Your task to perform on an android device: Clear the cart on walmart. Image 0: 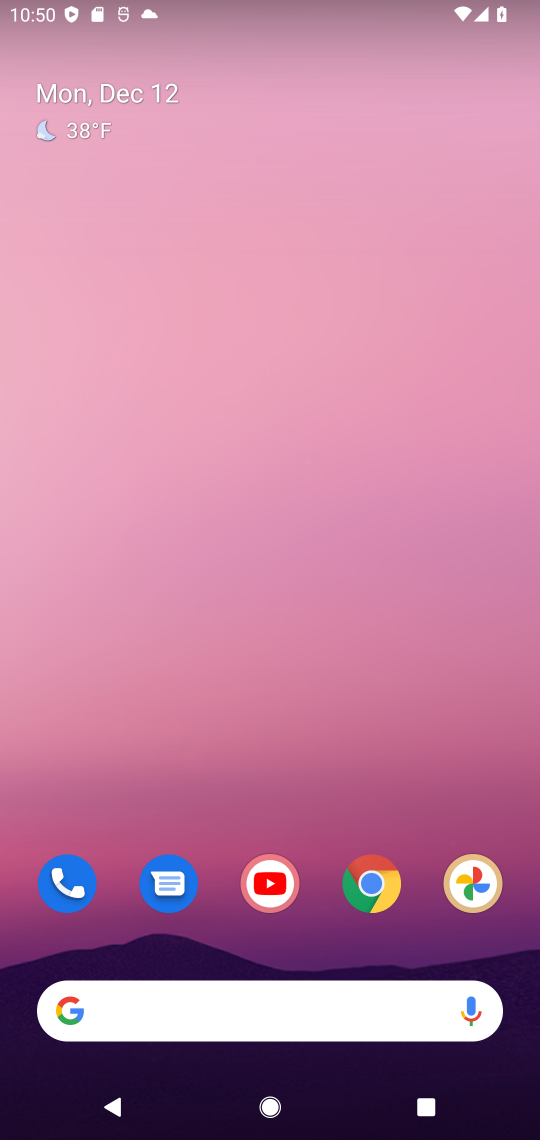
Step 0: drag from (241, 745) to (270, 191)
Your task to perform on an android device: Clear the cart on walmart. Image 1: 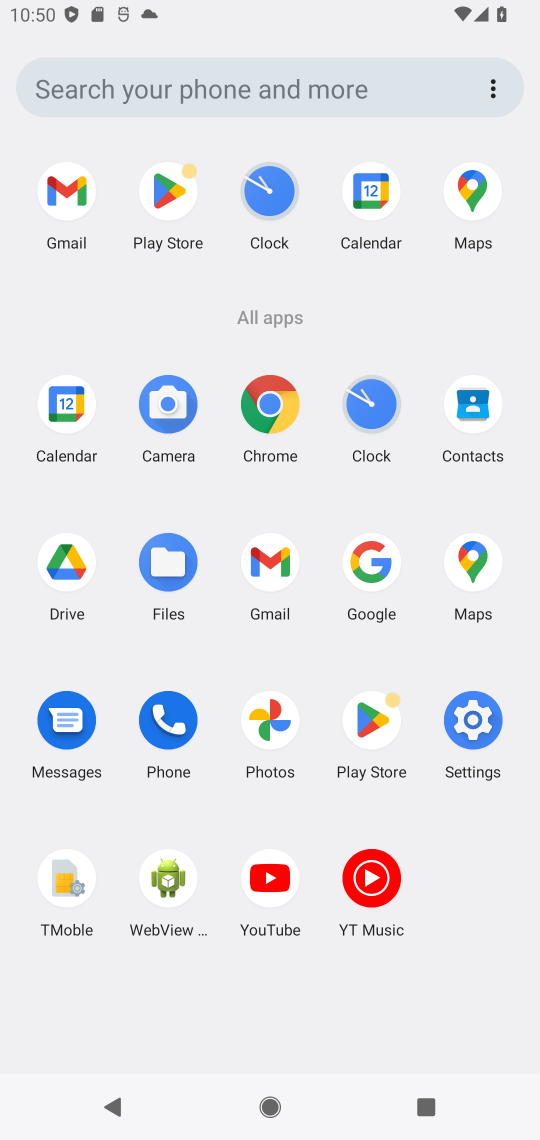
Step 1: click (370, 568)
Your task to perform on an android device: Clear the cart on walmart. Image 2: 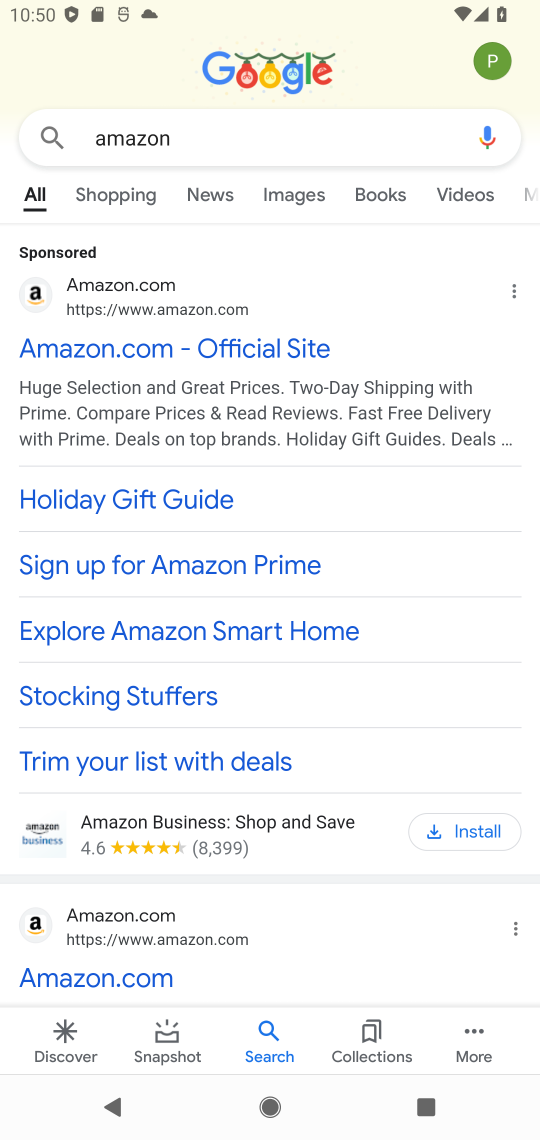
Step 2: click (189, 160)
Your task to perform on an android device: Clear the cart on walmart. Image 3: 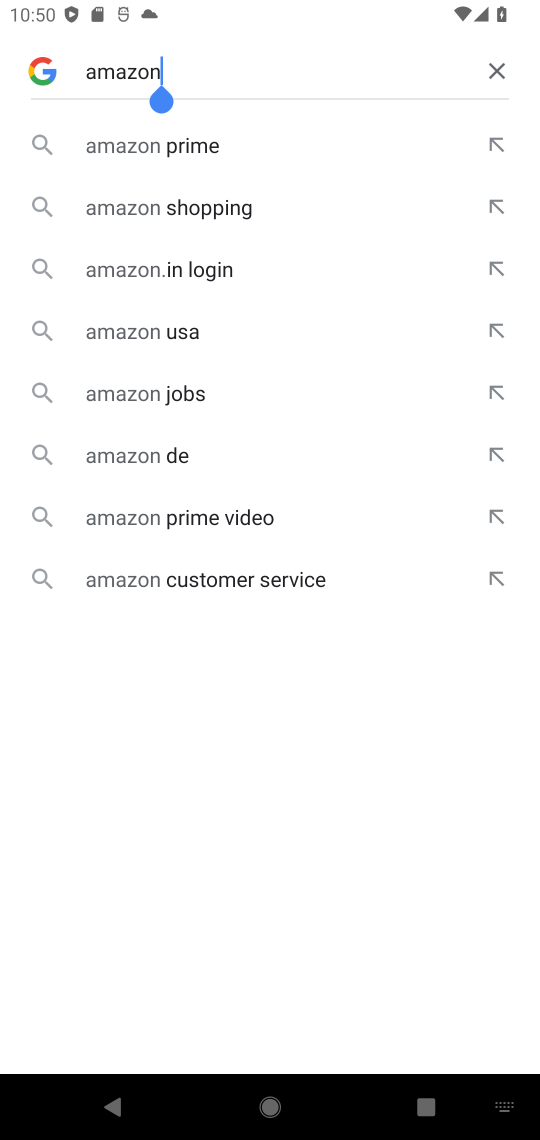
Step 3: click (489, 65)
Your task to perform on an android device: Clear the cart on walmart. Image 4: 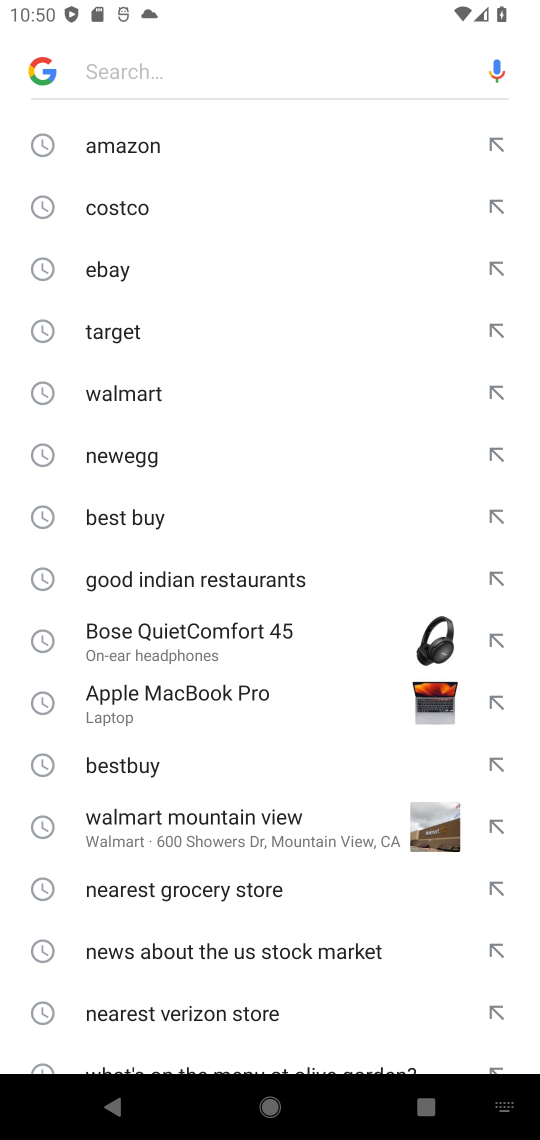
Step 4: click (133, 391)
Your task to perform on an android device: Clear the cart on walmart. Image 5: 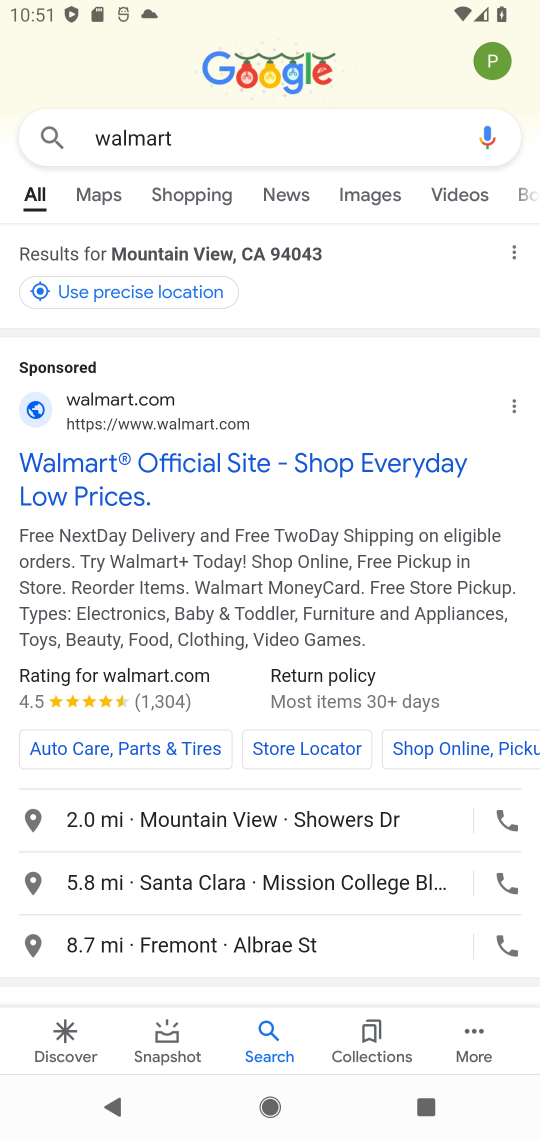
Step 5: drag from (383, 850) to (373, 522)
Your task to perform on an android device: Clear the cart on walmart. Image 6: 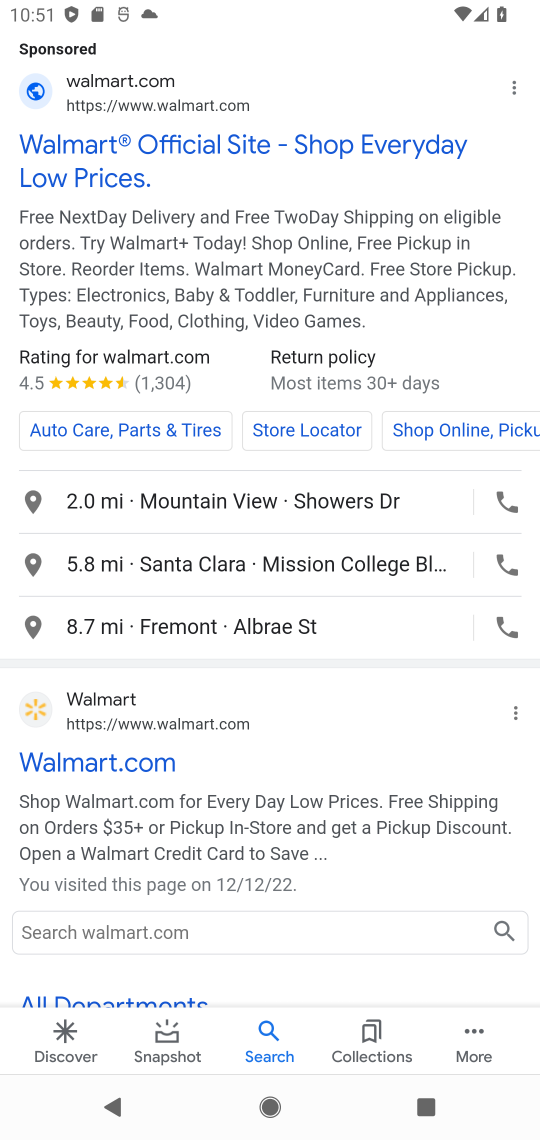
Step 6: click (54, 756)
Your task to perform on an android device: Clear the cart on walmart. Image 7: 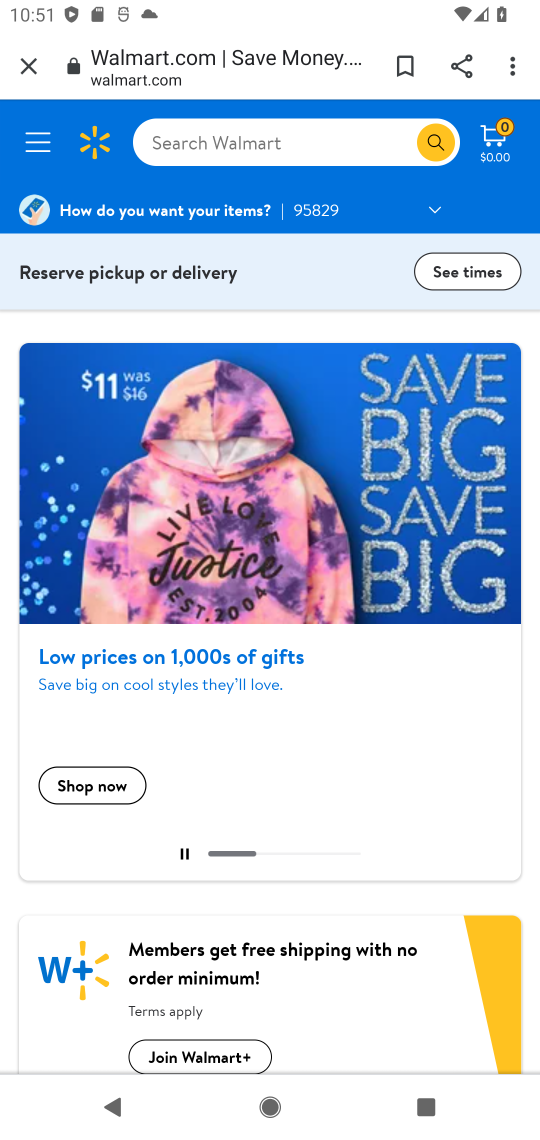
Step 7: click (489, 143)
Your task to perform on an android device: Clear the cart on walmart. Image 8: 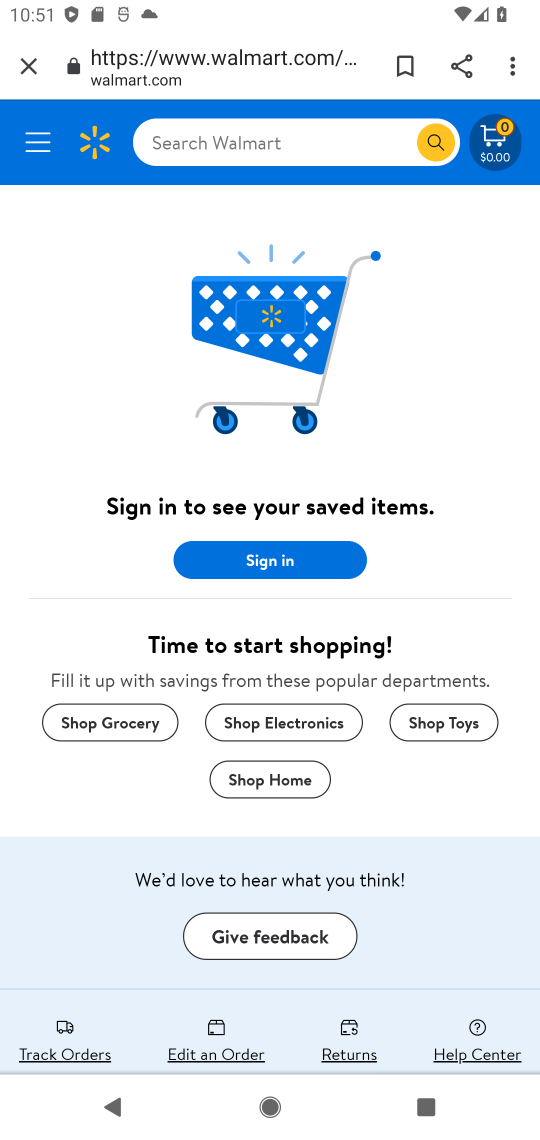
Step 8: task complete